Your task to perform on an android device: Open the calendar and show me this week's events? Image 0: 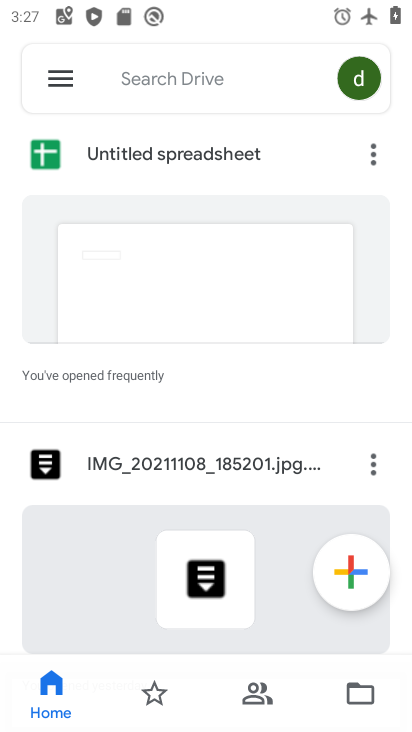
Step 0: press home button
Your task to perform on an android device: Open the calendar and show me this week's events? Image 1: 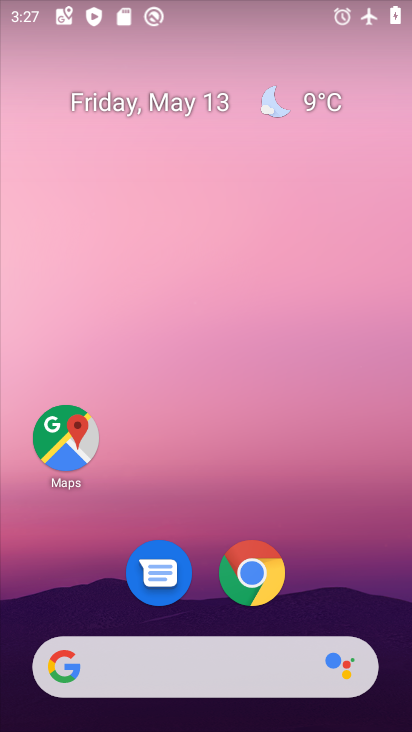
Step 1: drag from (343, 613) to (185, 103)
Your task to perform on an android device: Open the calendar and show me this week's events? Image 2: 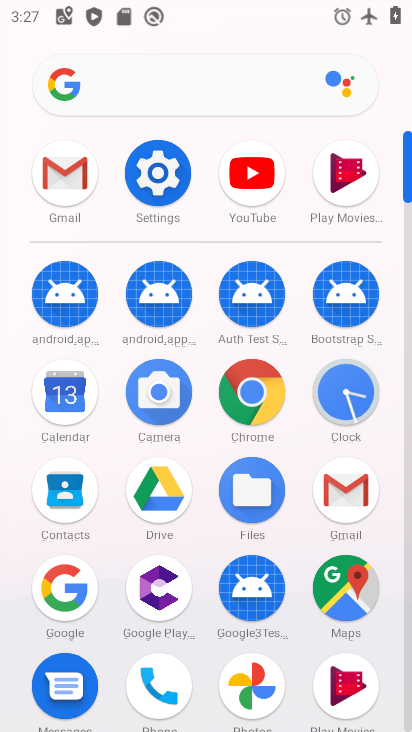
Step 2: click (73, 399)
Your task to perform on an android device: Open the calendar and show me this week's events? Image 3: 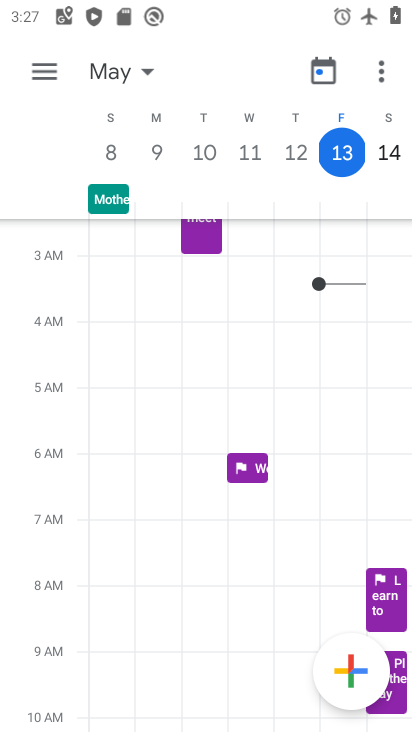
Step 3: click (327, 69)
Your task to perform on an android device: Open the calendar and show me this week's events? Image 4: 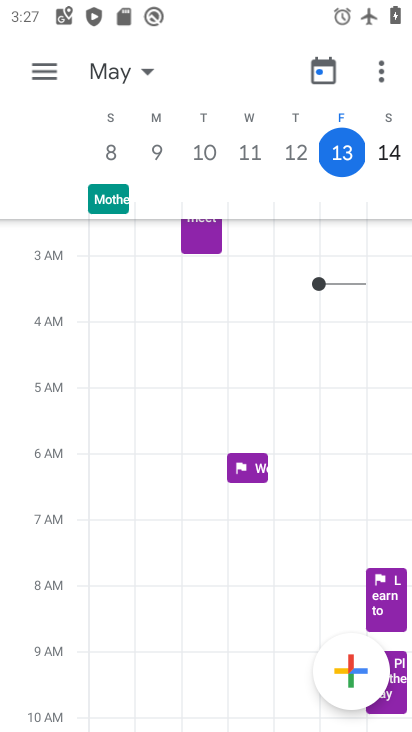
Step 4: click (326, 74)
Your task to perform on an android device: Open the calendar and show me this week's events? Image 5: 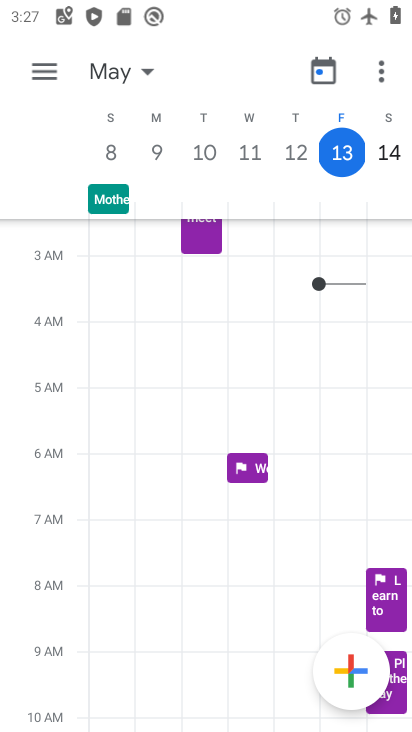
Step 5: click (46, 80)
Your task to perform on an android device: Open the calendar and show me this week's events? Image 6: 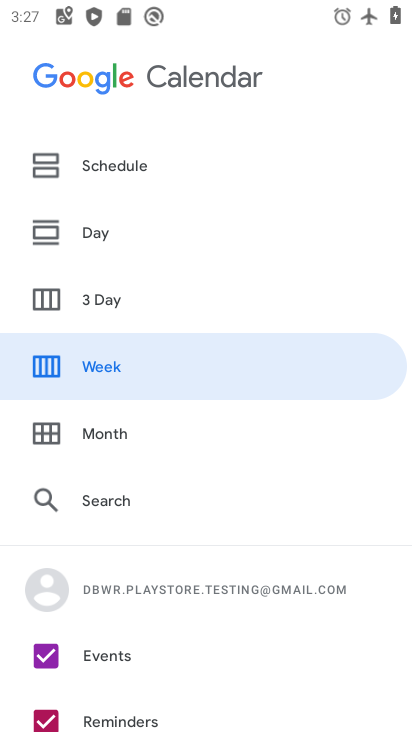
Step 6: click (100, 158)
Your task to perform on an android device: Open the calendar and show me this week's events? Image 7: 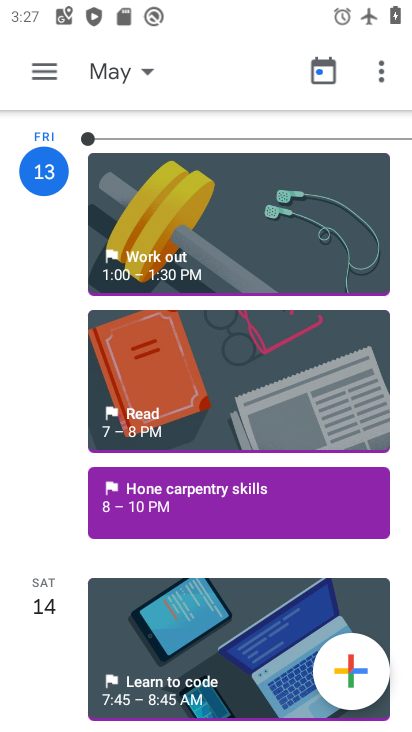
Step 7: task complete